Your task to perform on an android device: What's the weather today? Image 0: 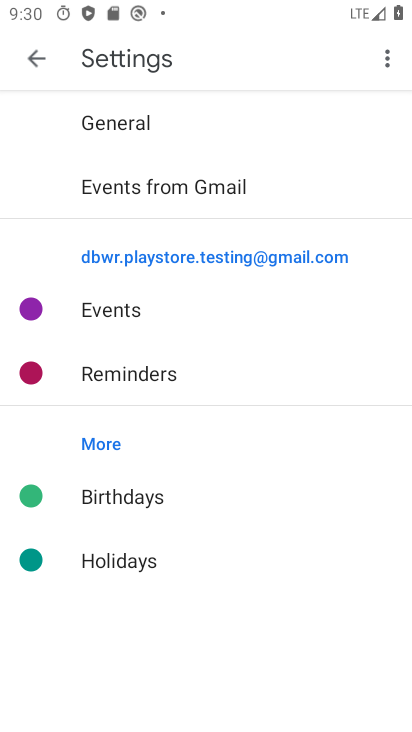
Step 0: press home button
Your task to perform on an android device: What's the weather today? Image 1: 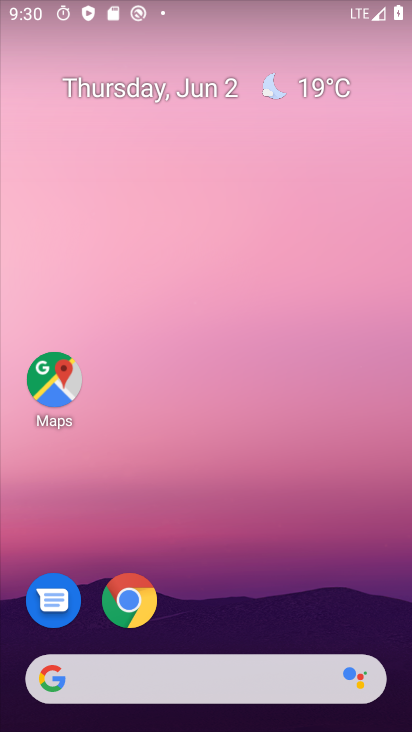
Step 1: drag from (190, 572) to (190, 241)
Your task to perform on an android device: What's the weather today? Image 2: 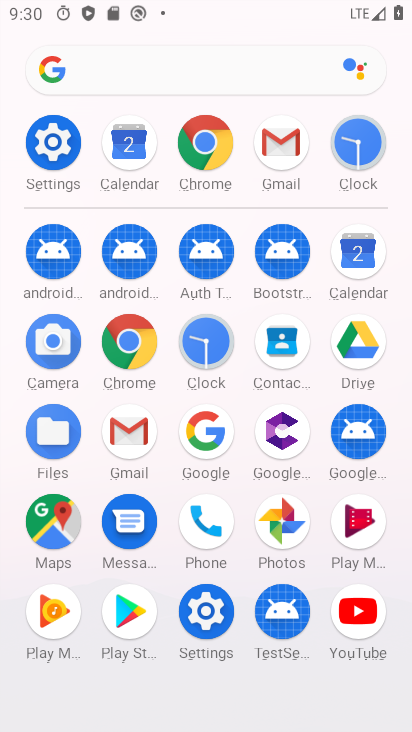
Step 2: click (193, 438)
Your task to perform on an android device: What's the weather today? Image 3: 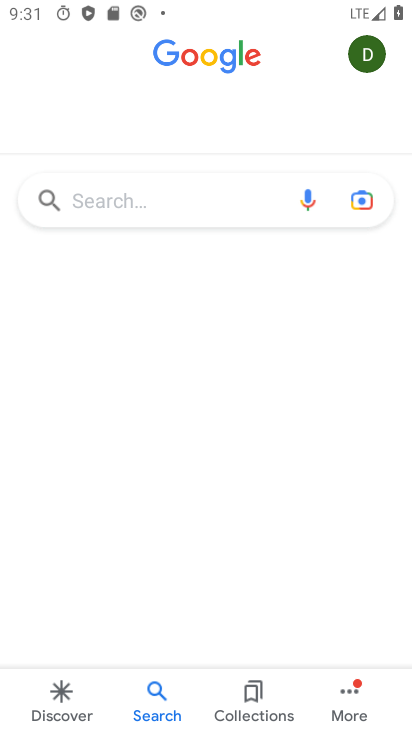
Step 3: press home button
Your task to perform on an android device: What's the weather today? Image 4: 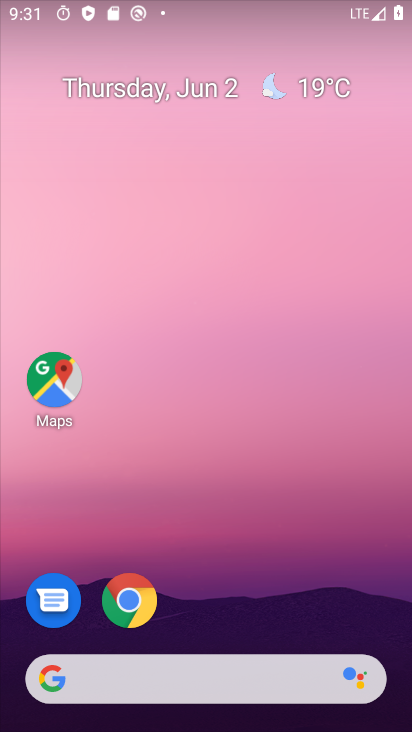
Step 4: drag from (229, 628) to (210, 221)
Your task to perform on an android device: What's the weather today? Image 5: 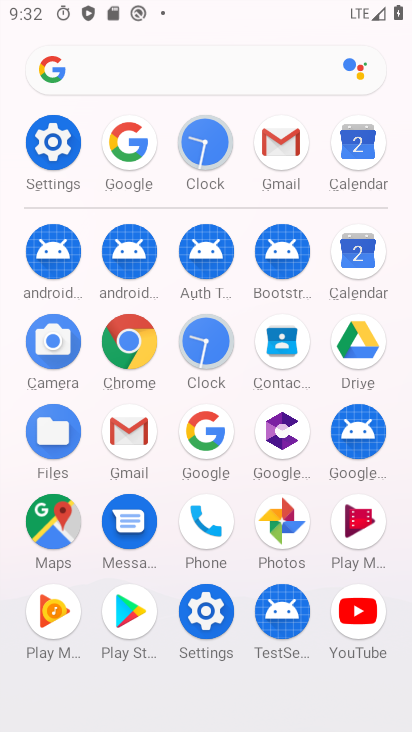
Step 5: click (204, 423)
Your task to perform on an android device: What's the weather today? Image 6: 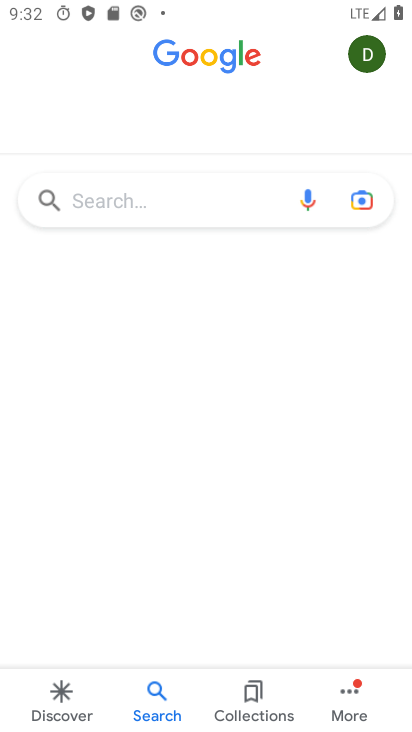
Step 6: click (145, 209)
Your task to perform on an android device: What's the weather today? Image 7: 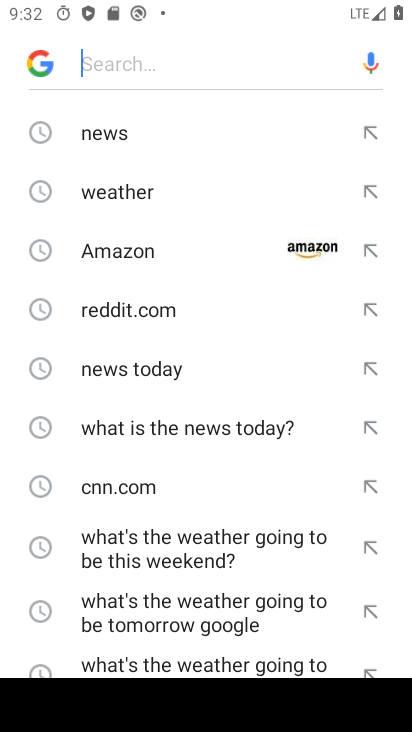
Step 7: click (145, 189)
Your task to perform on an android device: What's the weather today? Image 8: 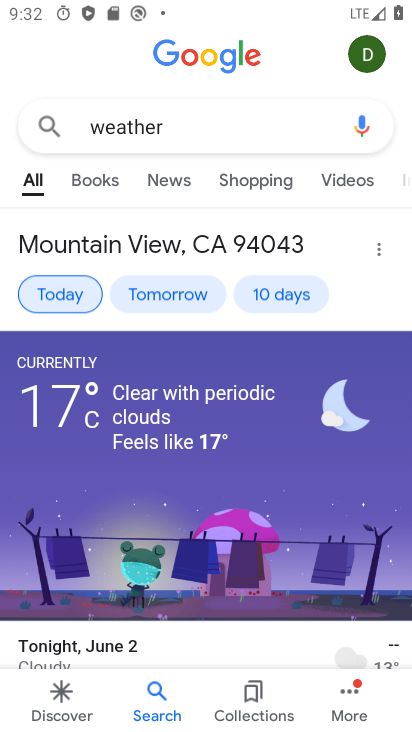
Step 8: task complete